Your task to perform on an android device: Open the calendar app, open the side menu, and click the "Day" option Image 0: 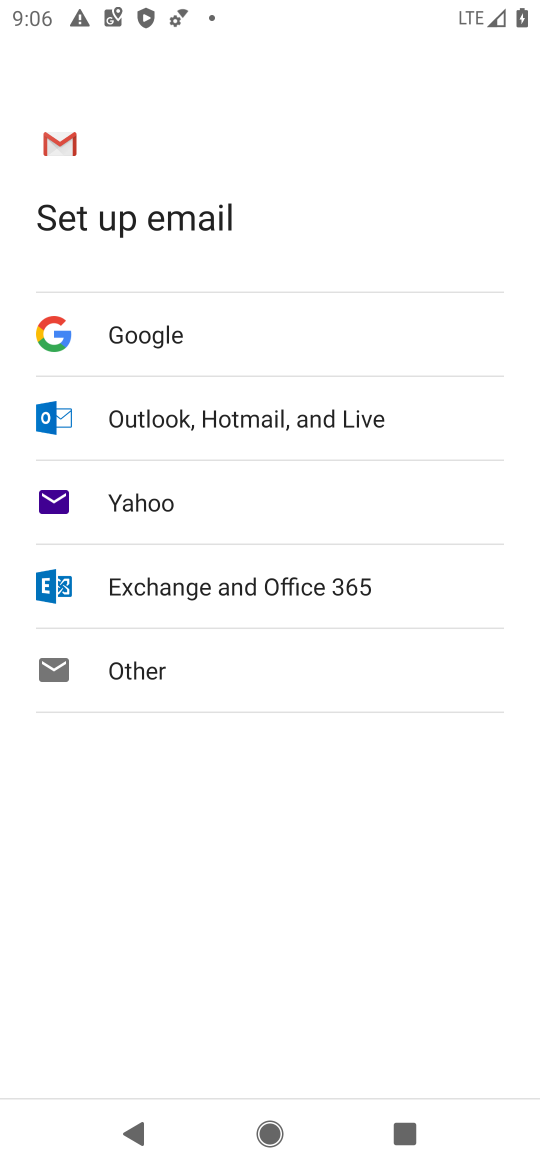
Step 0: press home button
Your task to perform on an android device: Open the calendar app, open the side menu, and click the "Day" option Image 1: 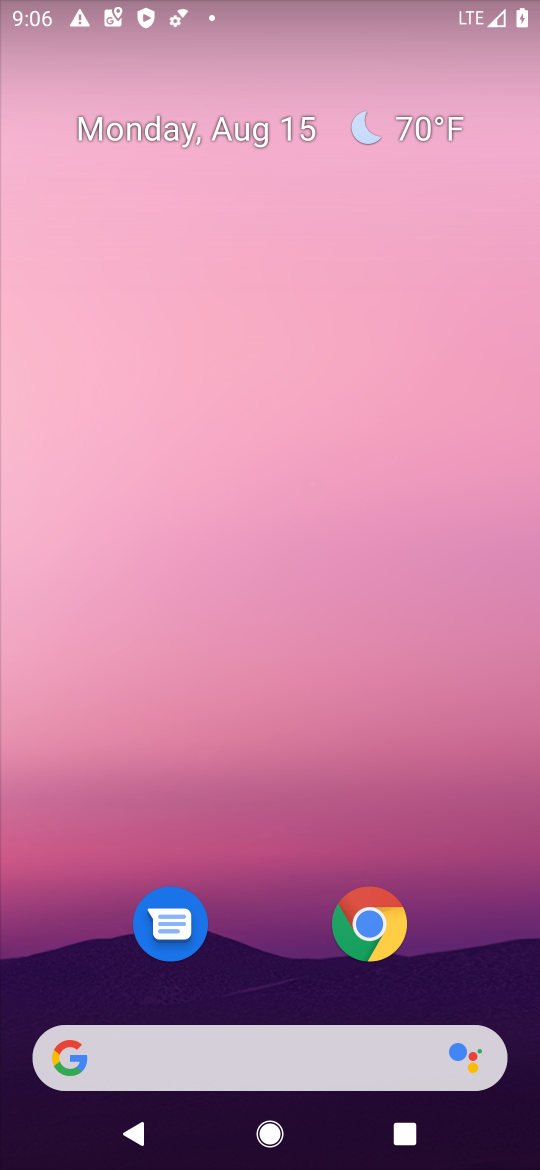
Step 1: drag from (498, 918) to (441, 321)
Your task to perform on an android device: Open the calendar app, open the side menu, and click the "Day" option Image 2: 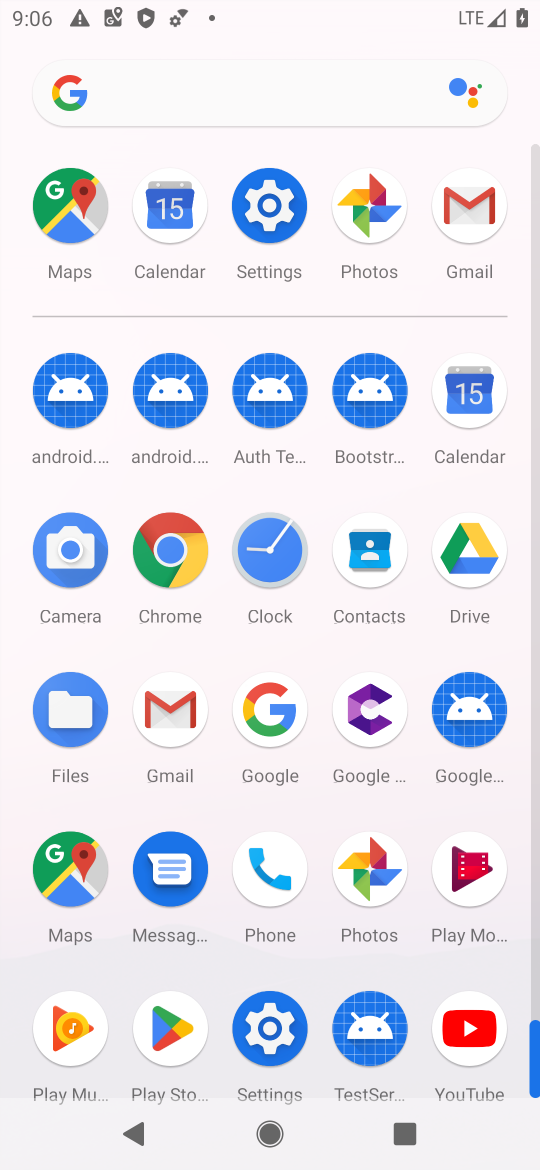
Step 2: click (469, 392)
Your task to perform on an android device: Open the calendar app, open the side menu, and click the "Day" option Image 3: 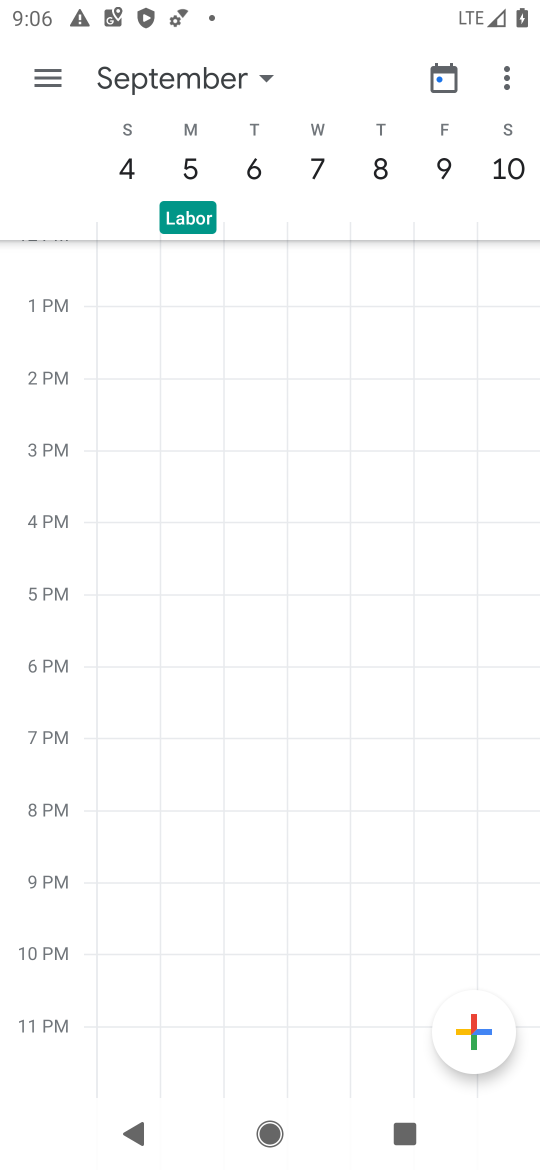
Step 3: click (40, 80)
Your task to perform on an android device: Open the calendar app, open the side menu, and click the "Day" option Image 4: 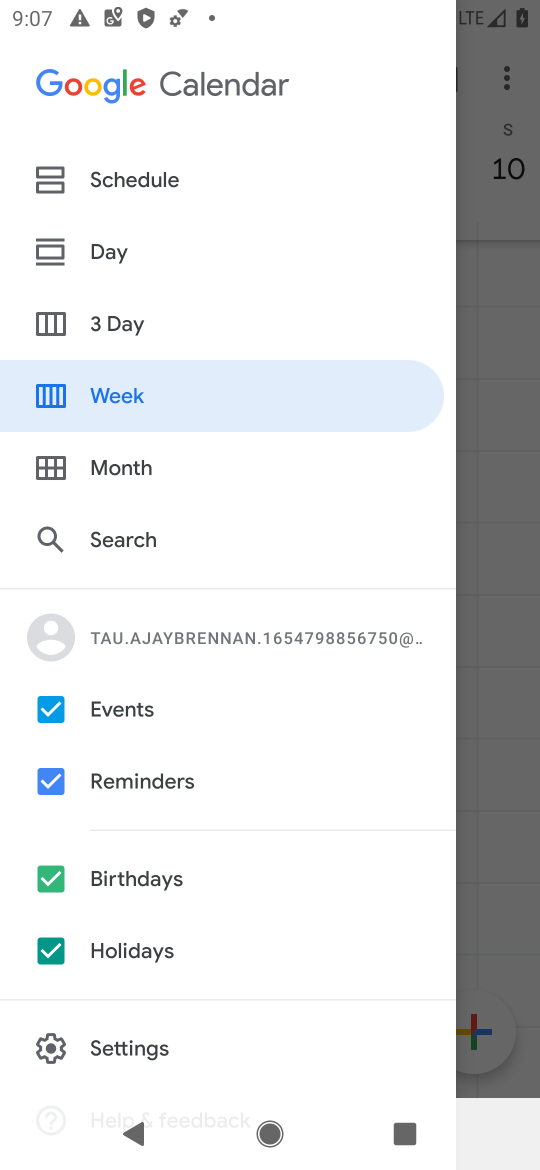
Step 4: click (100, 248)
Your task to perform on an android device: Open the calendar app, open the side menu, and click the "Day" option Image 5: 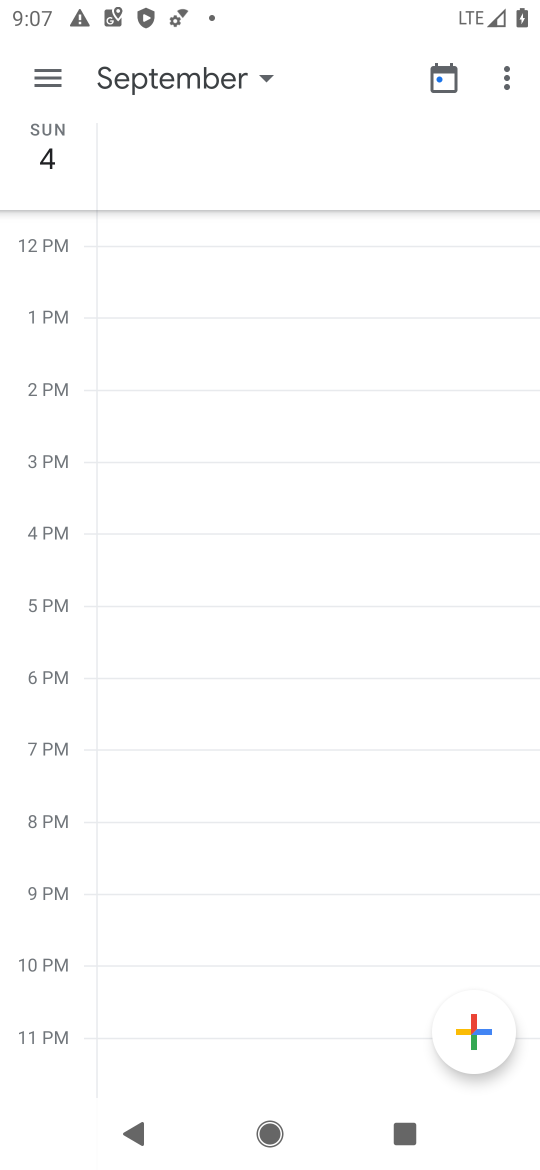
Step 5: task complete